Your task to perform on an android device: install app "Google Sheets" Image 0: 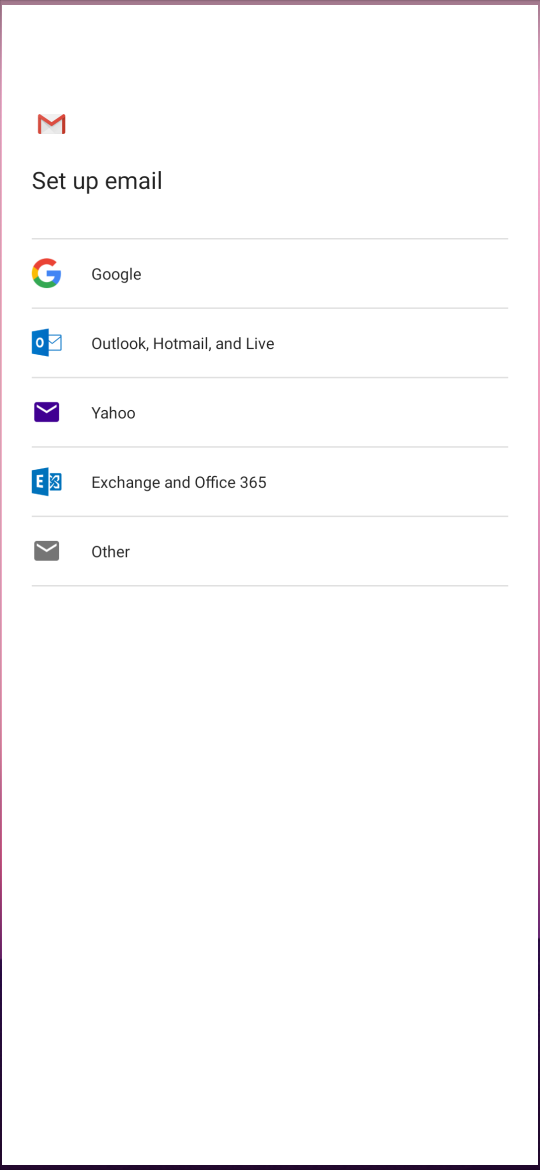
Step 0: press back button
Your task to perform on an android device: install app "Google Sheets" Image 1: 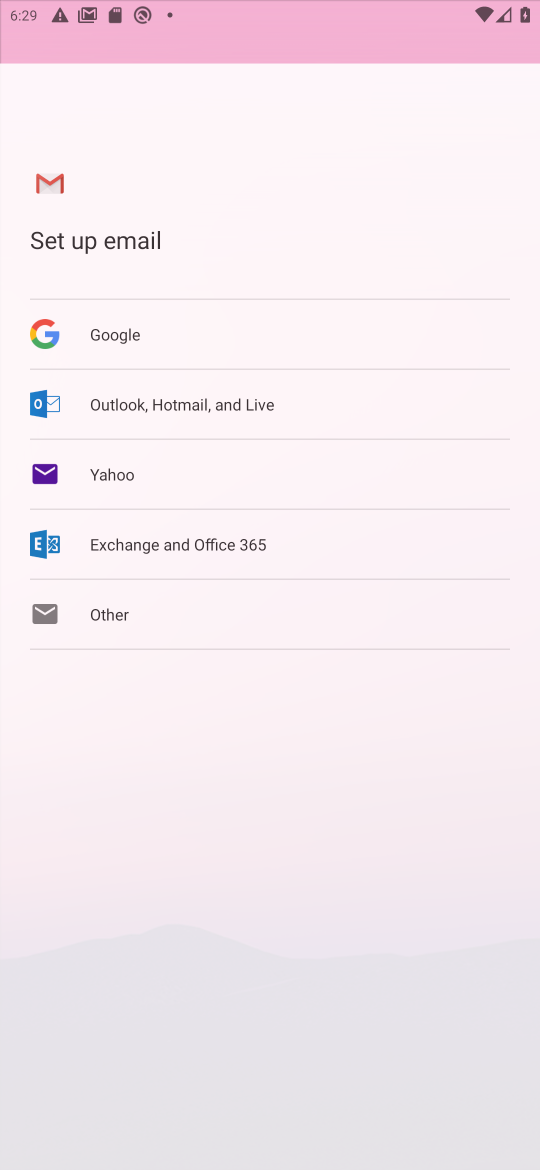
Step 1: press back button
Your task to perform on an android device: install app "Google Sheets" Image 2: 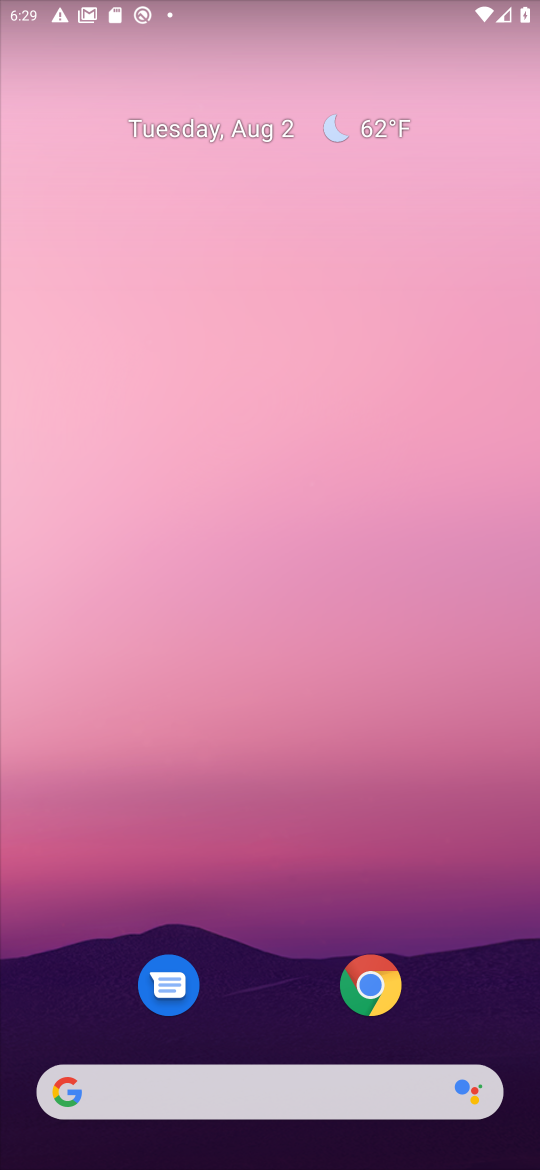
Step 2: drag from (253, 749) to (253, 306)
Your task to perform on an android device: install app "Google Sheets" Image 3: 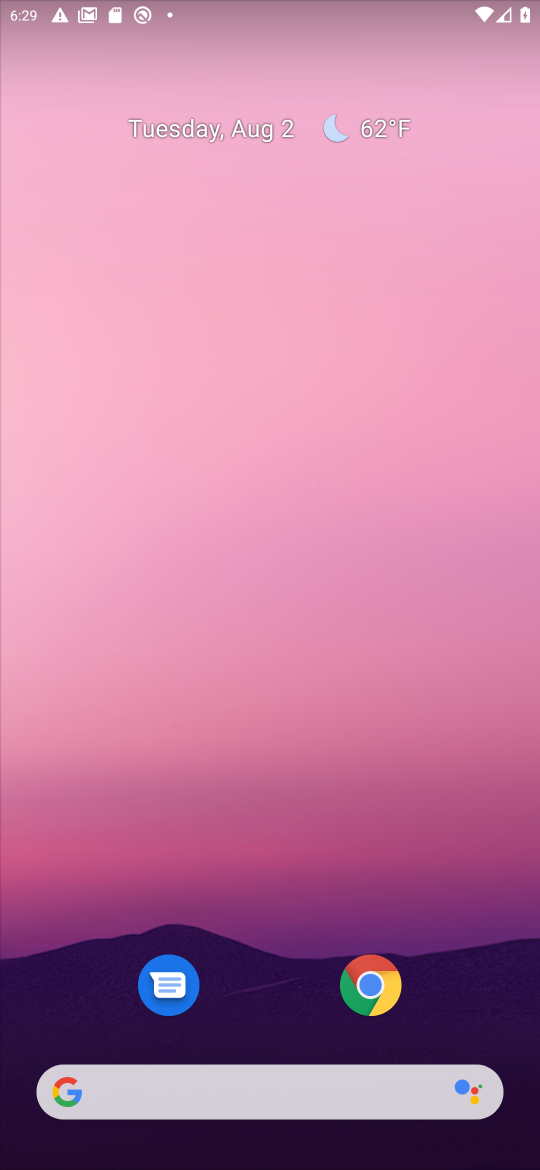
Step 3: drag from (252, 972) to (238, 315)
Your task to perform on an android device: install app "Google Sheets" Image 4: 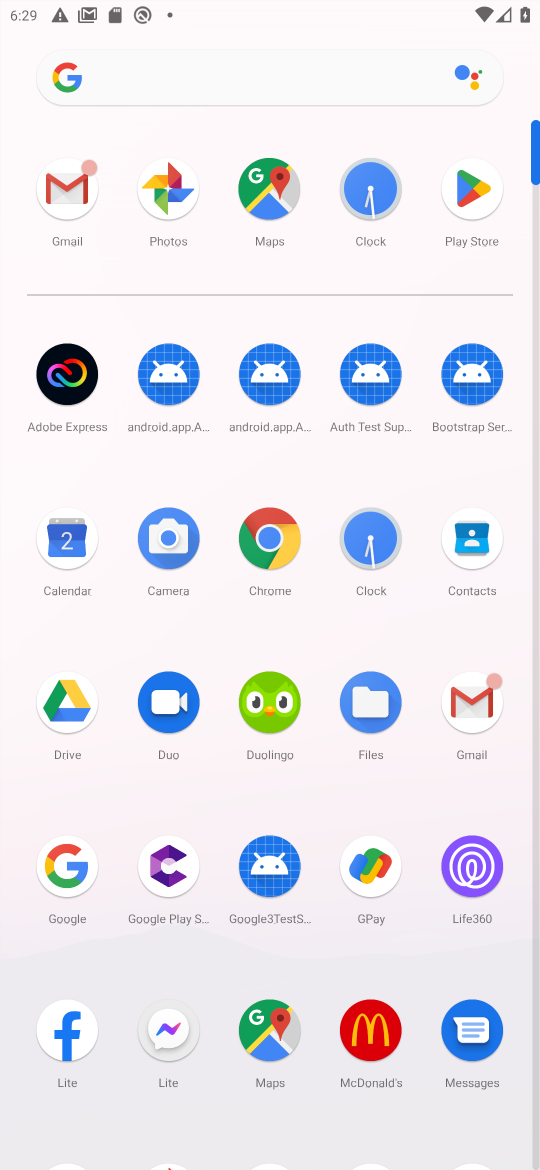
Step 4: click (464, 211)
Your task to perform on an android device: install app "Google Sheets" Image 5: 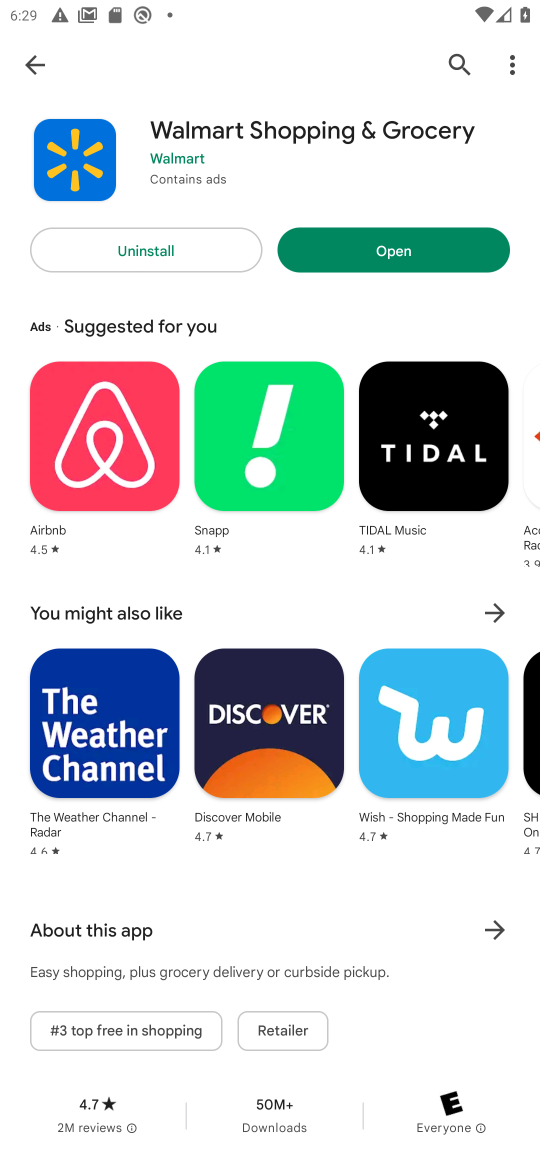
Step 5: click (458, 66)
Your task to perform on an android device: install app "Google Sheets" Image 6: 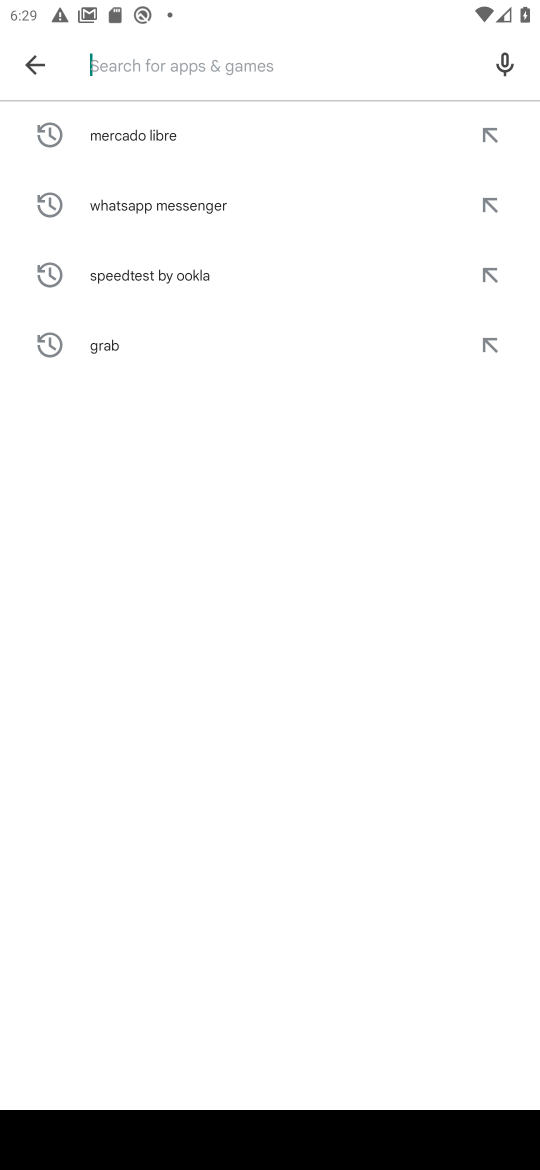
Step 6: click (411, 82)
Your task to perform on an android device: install app "Google Sheets" Image 7: 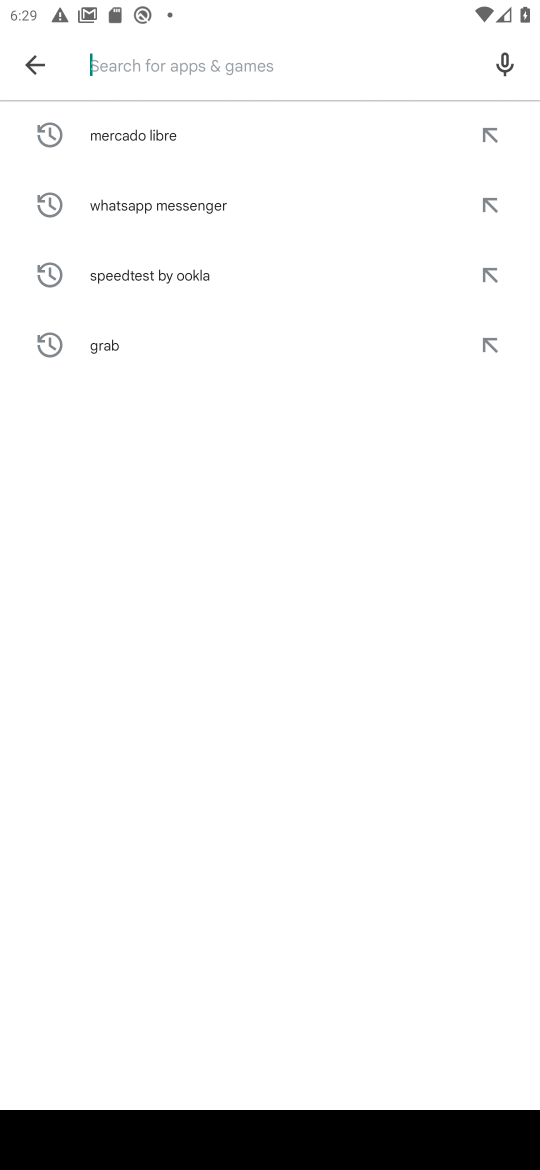
Step 7: type "Google Sheets"
Your task to perform on an android device: install app "Google Sheets" Image 8: 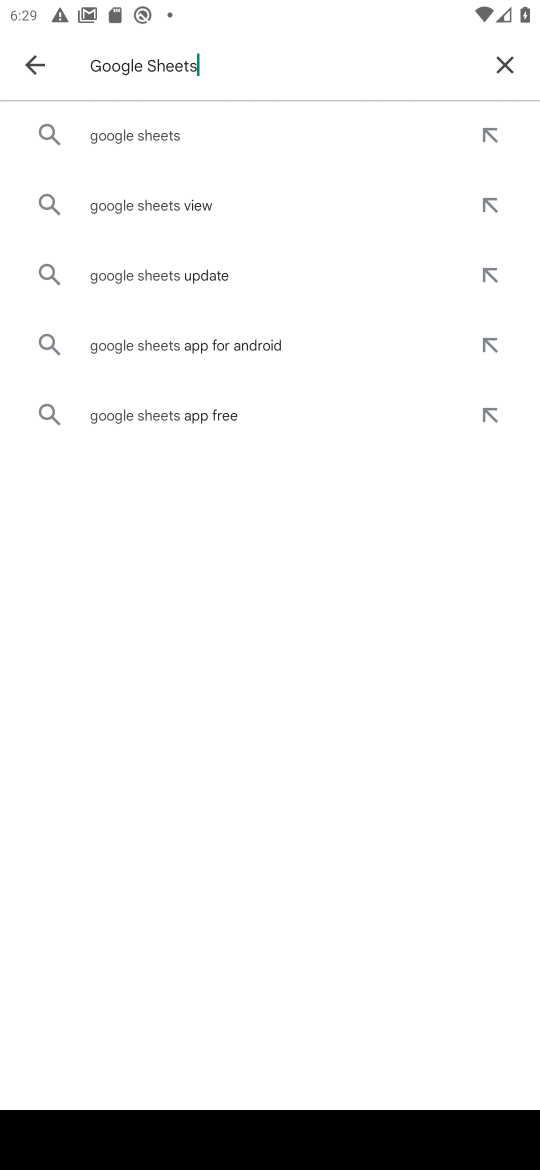
Step 8: click (205, 148)
Your task to perform on an android device: install app "Google Sheets" Image 9: 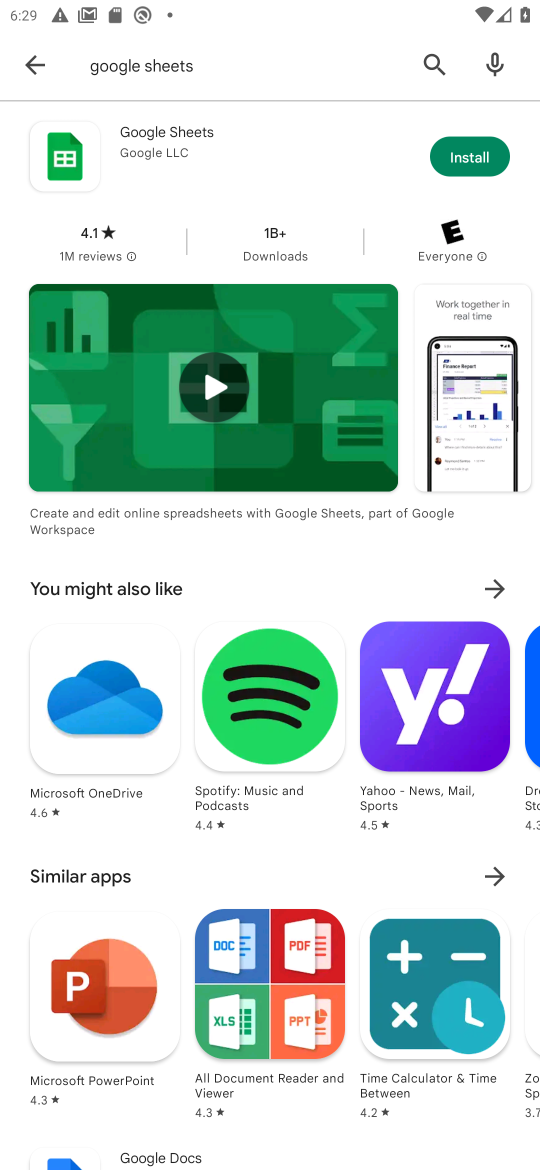
Step 9: click (461, 162)
Your task to perform on an android device: install app "Google Sheets" Image 10: 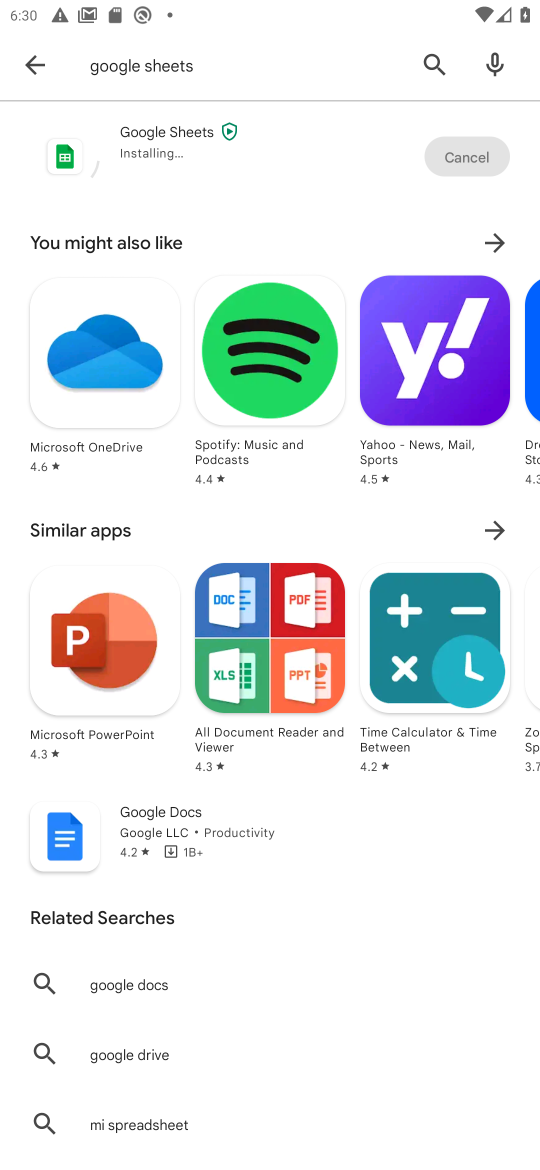
Step 10: task complete